Your task to perform on an android device: Check the news Image 0: 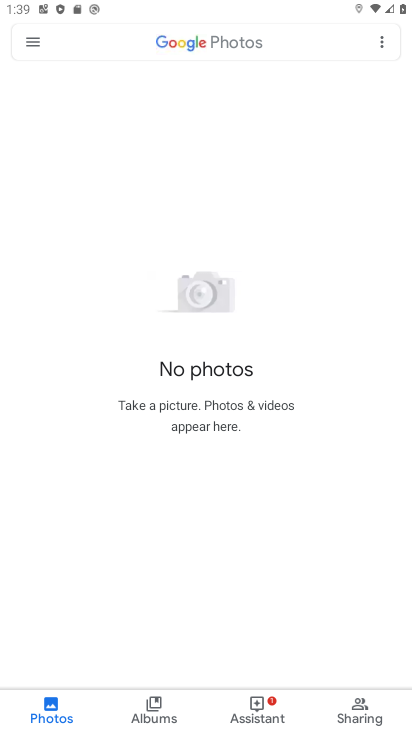
Step 0: press home button
Your task to perform on an android device: Check the news Image 1: 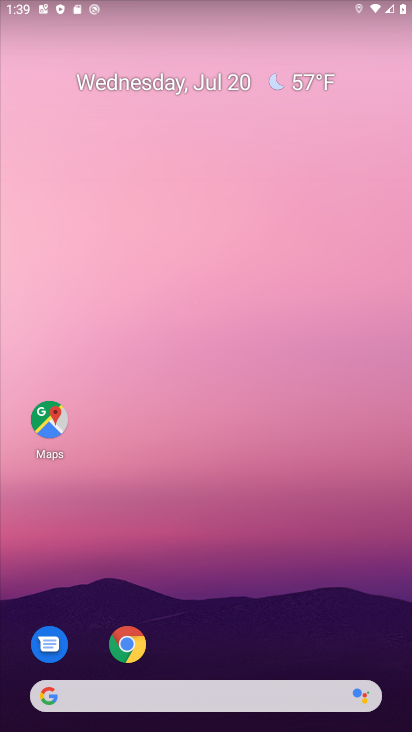
Step 1: click (50, 689)
Your task to perform on an android device: Check the news Image 2: 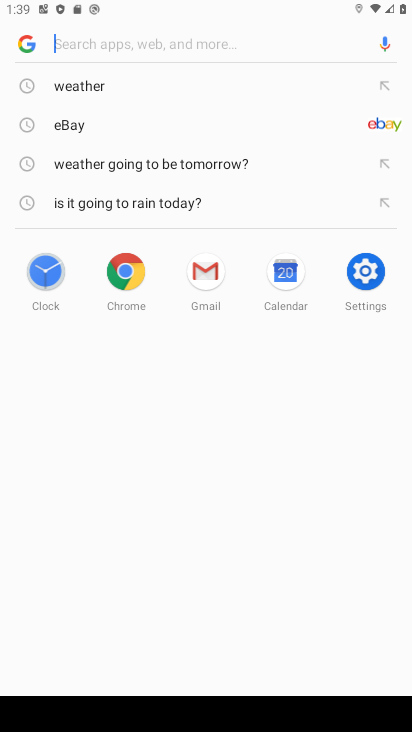
Step 2: type "news"
Your task to perform on an android device: Check the news Image 3: 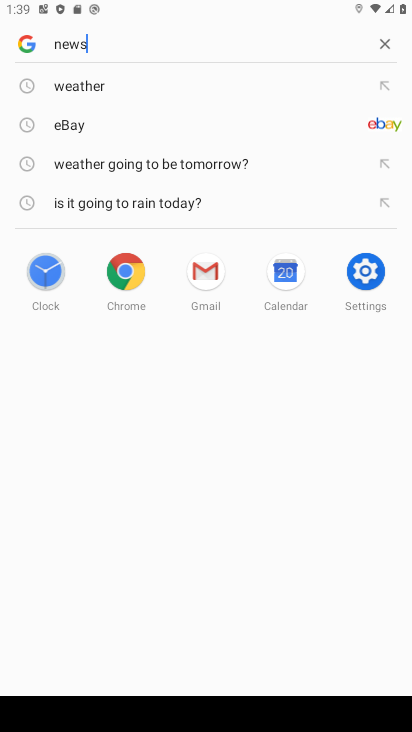
Step 3: press enter
Your task to perform on an android device: Check the news Image 4: 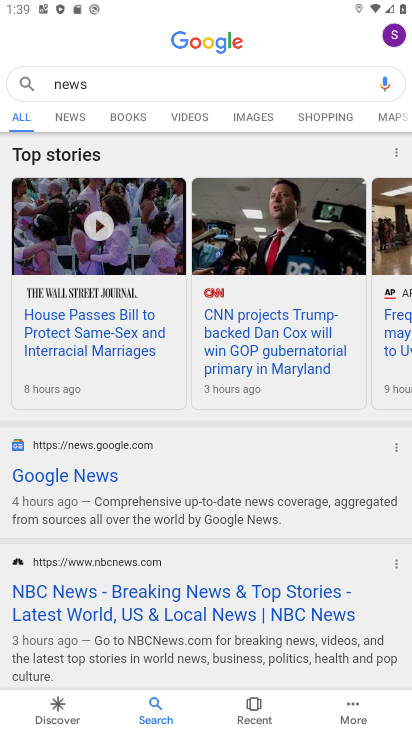
Step 4: task complete